Your task to perform on an android device: Open the stopwatch Image 0: 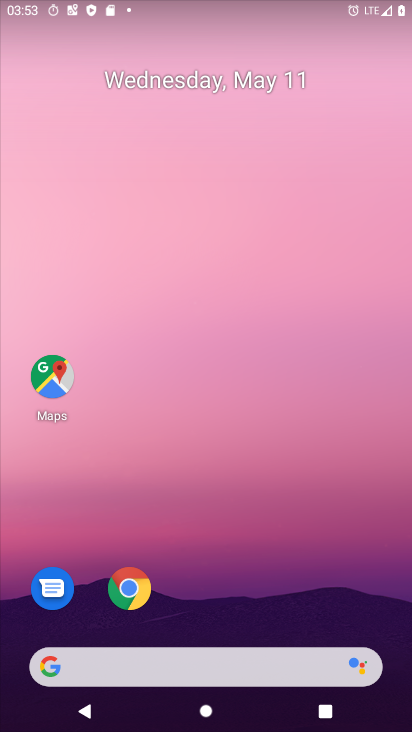
Step 0: drag from (219, 620) to (218, 291)
Your task to perform on an android device: Open the stopwatch Image 1: 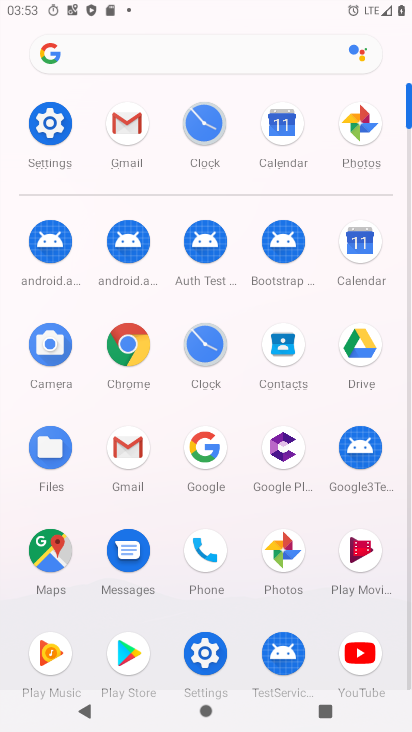
Step 1: click (209, 137)
Your task to perform on an android device: Open the stopwatch Image 2: 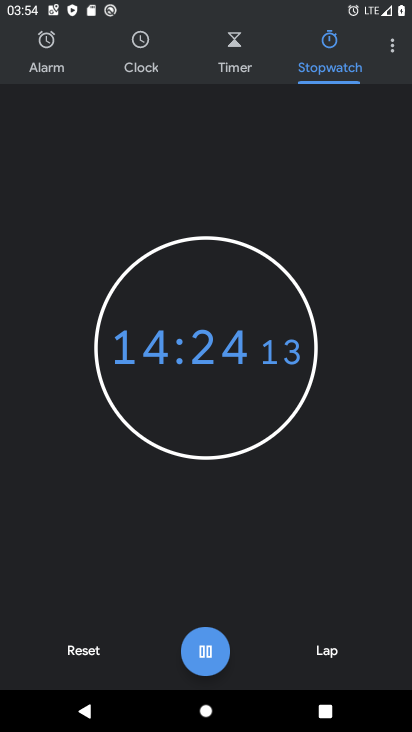
Step 2: task complete